Your task to perform on an android device: toggle data saver in the chrome app Image 0: 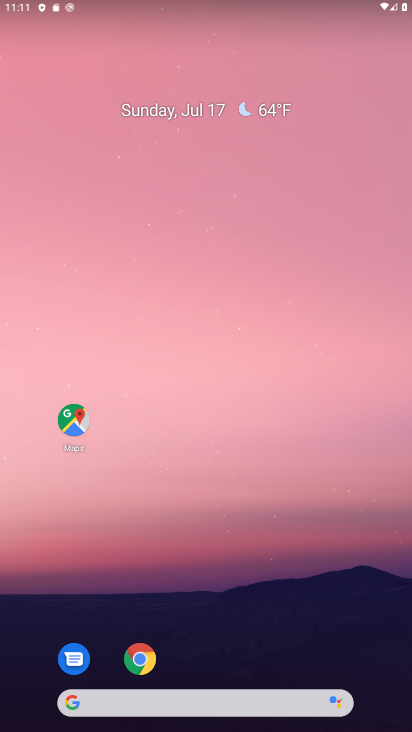
Step 0: click (147, 664)
Your task to perform on an android device: toggle data saver in the chrome app Image 1: 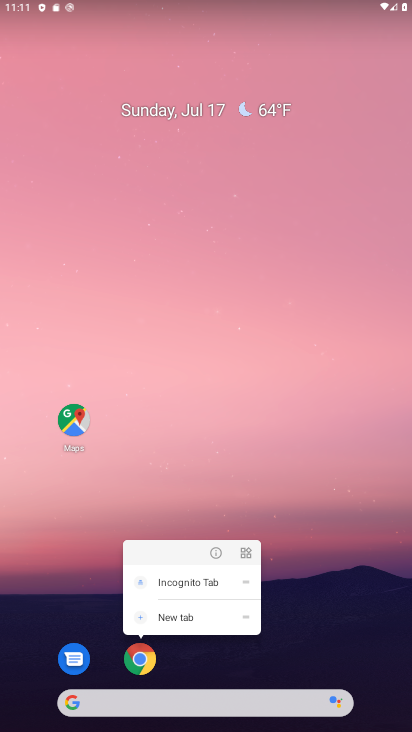
Step 1: click (147, 664)
Your task to perform on an android device: toggle data saver in the chrome app Image 2: 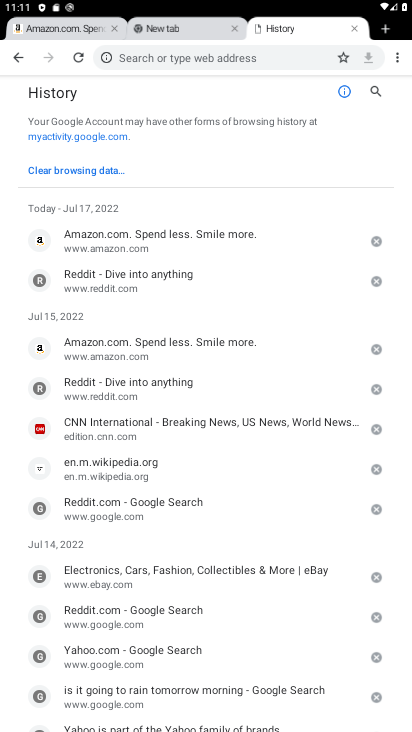
Step 2: click (395, 57)
Your task to perform on an android device: toggle data saver in the chrome app Image 3: 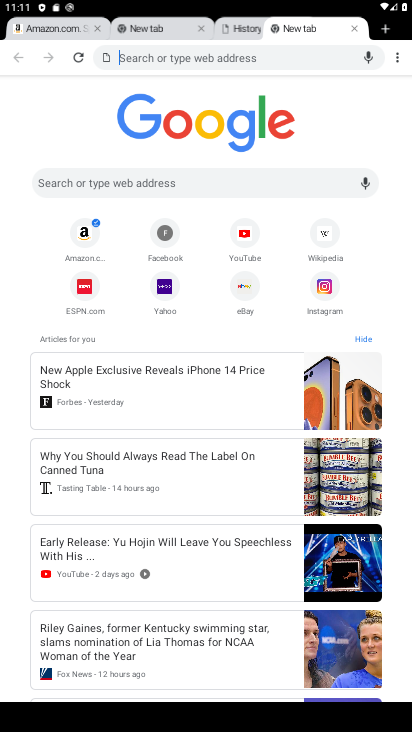
Step 3: click (395, 57)
Your task to perform on an android device: toggle data saver in the chrome app Image 4: 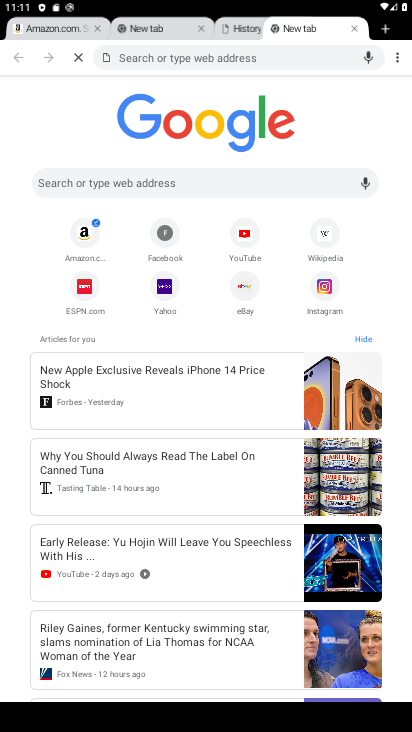
Step 4: click (395, 57)
Your task to perform on an android device: toggle data saver in the chrome app Image 5: 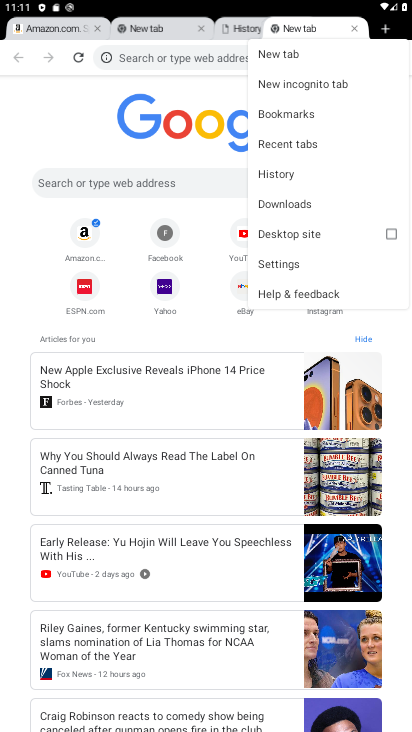
Step 5: click (301, 265)
Your task to perform on an android device: toggle data saver in the chrome app Image 6: 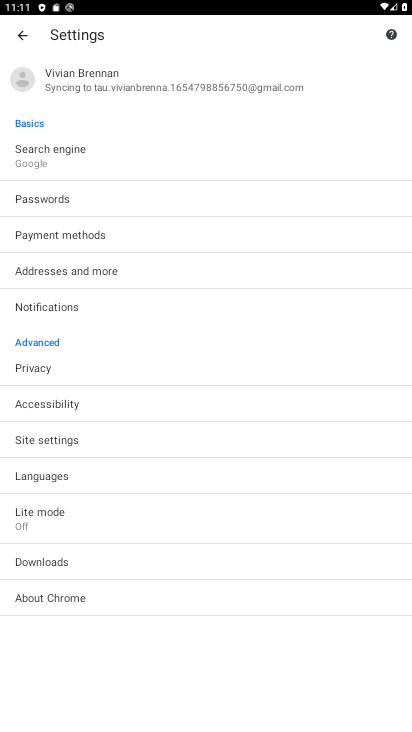
Step 6: task complete